Your task to perform on an android device: Open Chrome and go to the settings page Image 0: 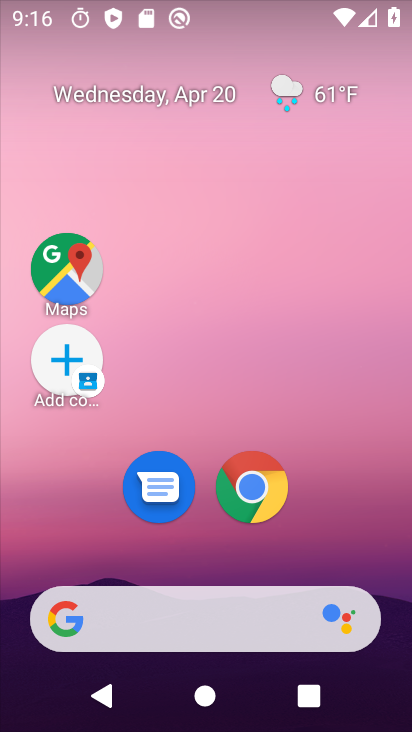
Step 0: click (268, 490)
Your task to perform on an android device: Open Chrome and go to the settings page Image 1: 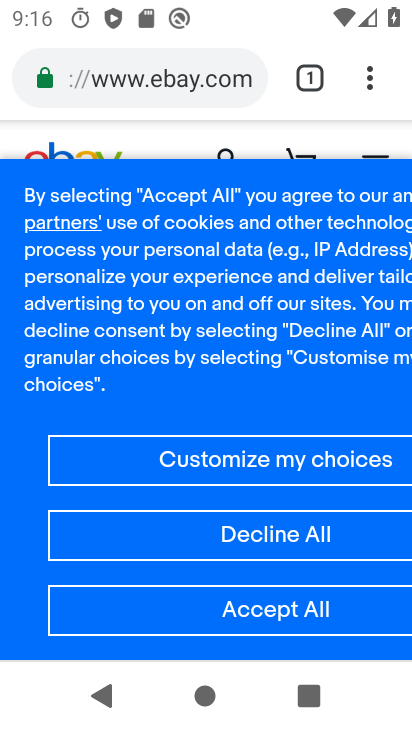
Step 1: click (366, 80)
Your task to perform on an android device: Open Chrome and go to the settings page Image 2: 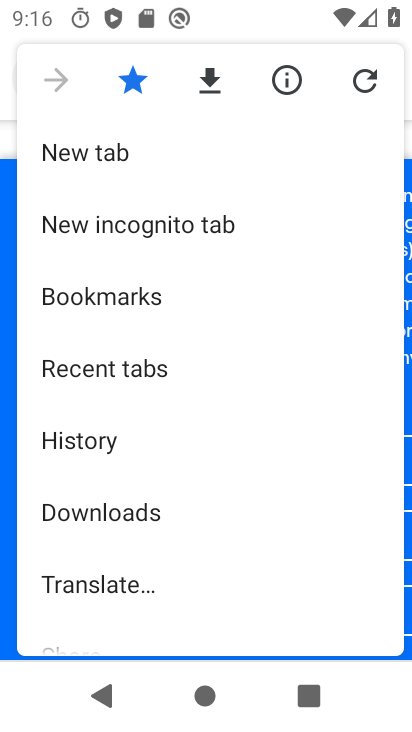
Step 2: drag from (122, 522) to (100, 280)
Your task to perform on an android device: Open Chrome and go to the settings page Image 3: 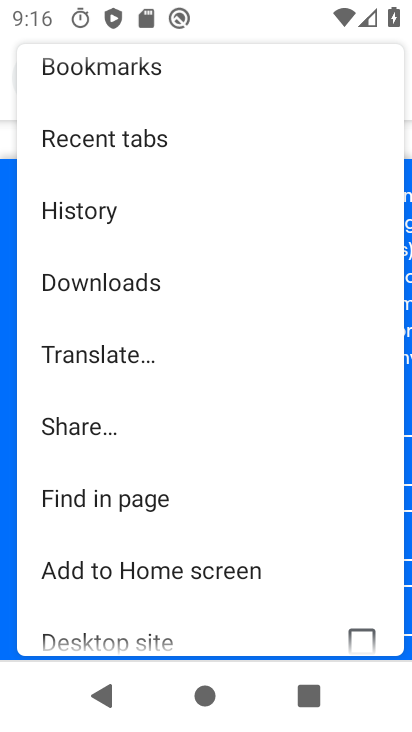
Step 3: drag from (108, 621) to (114, 359)
Your task to perform on an android device: Open Chrome and go to the settings page Image 4: 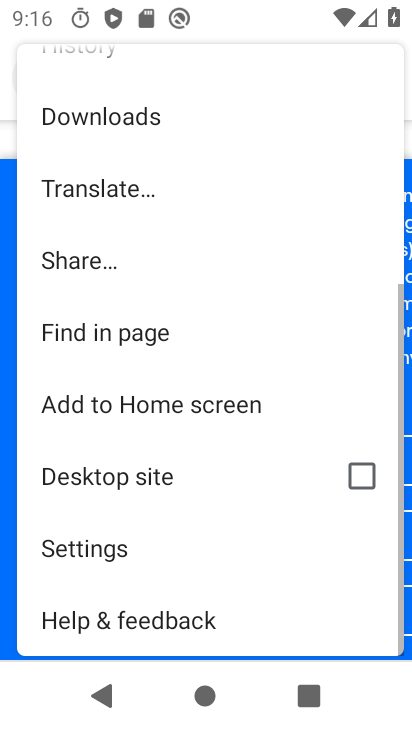
Step 4: click (88, 543)
Your task to perform on an android device: Open Chrome and go to the settings page Image 5: 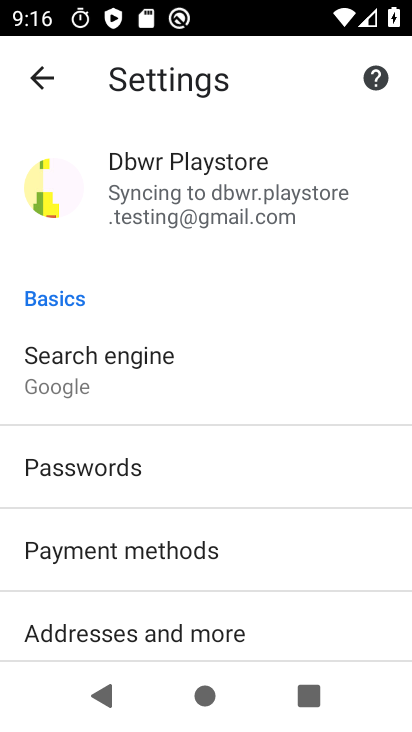
Step 5: task complete